Your task to perform on an android device: Find the nearest electronics store that's open Image 0: 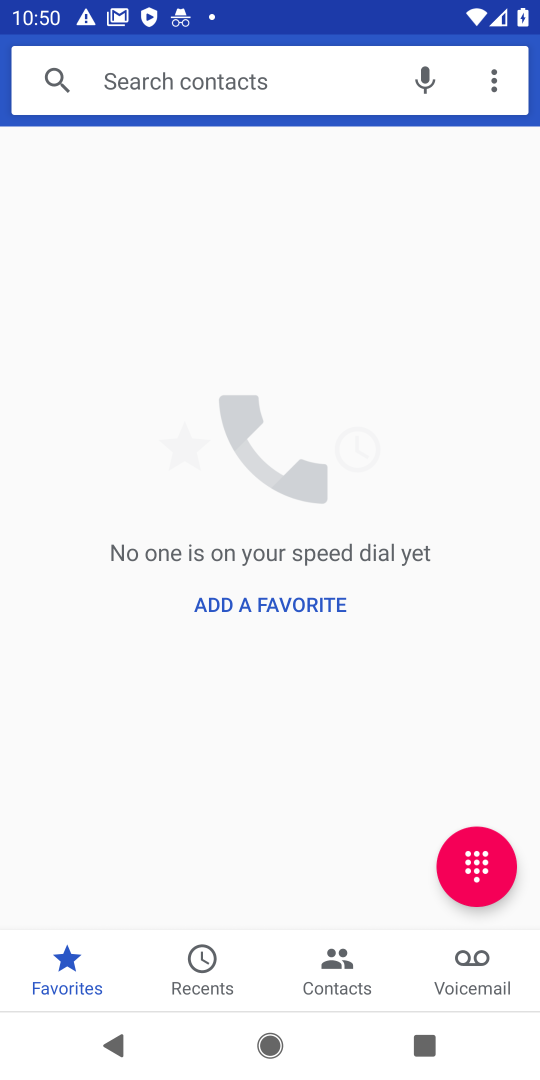
Step 0: press home button
Your task to perform on an android device: Find the nearest electronics store that's open Image 1: 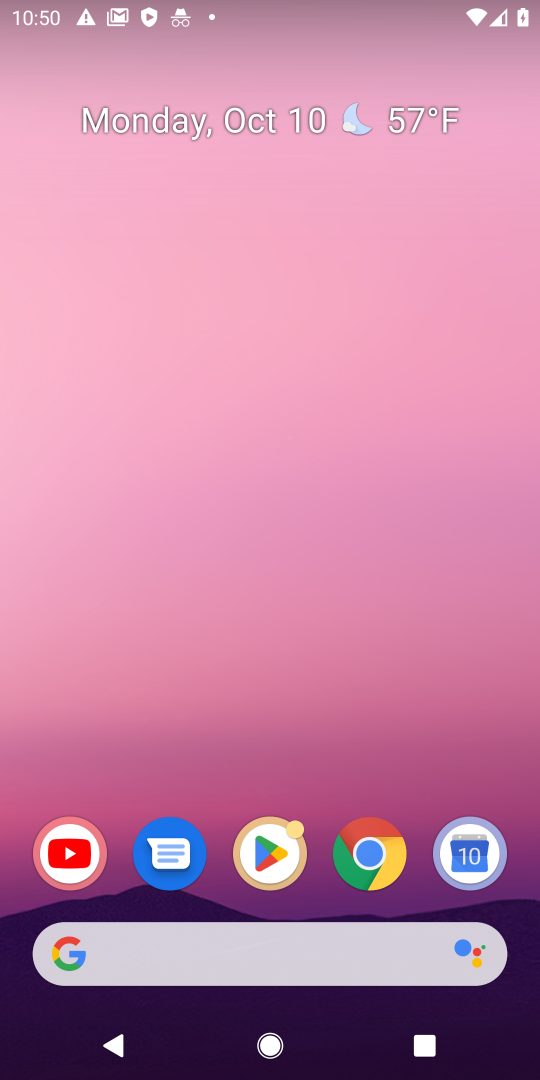
Step 1: click (330, 942)
Your task to perform on an android device: Find the nearest electronics store that's open Image 2: 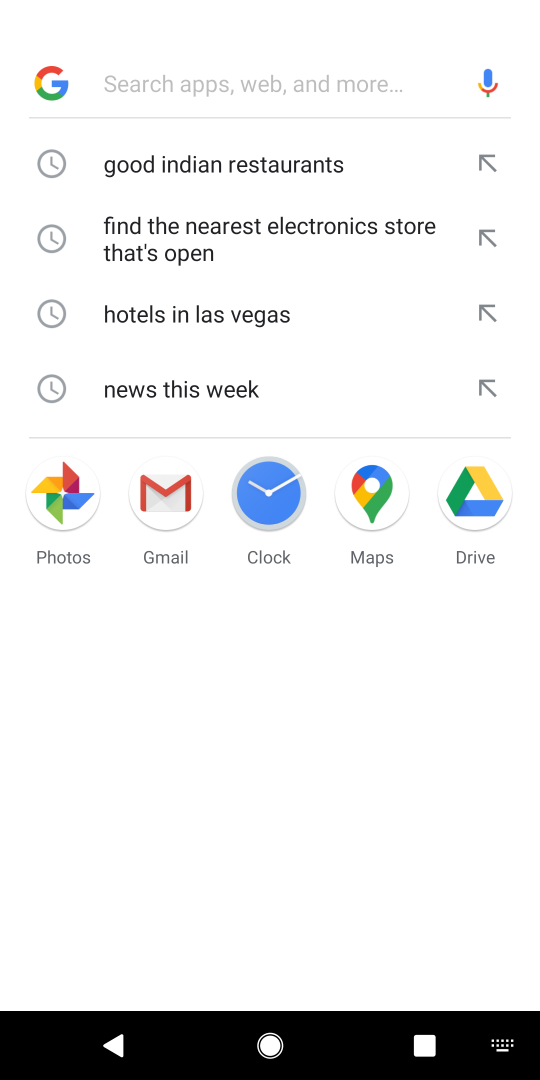
Step 2: type "Find the nearest electronics store that's open"
Your task to perform on an android device: Find the nearest electronics store that's open Image 3: 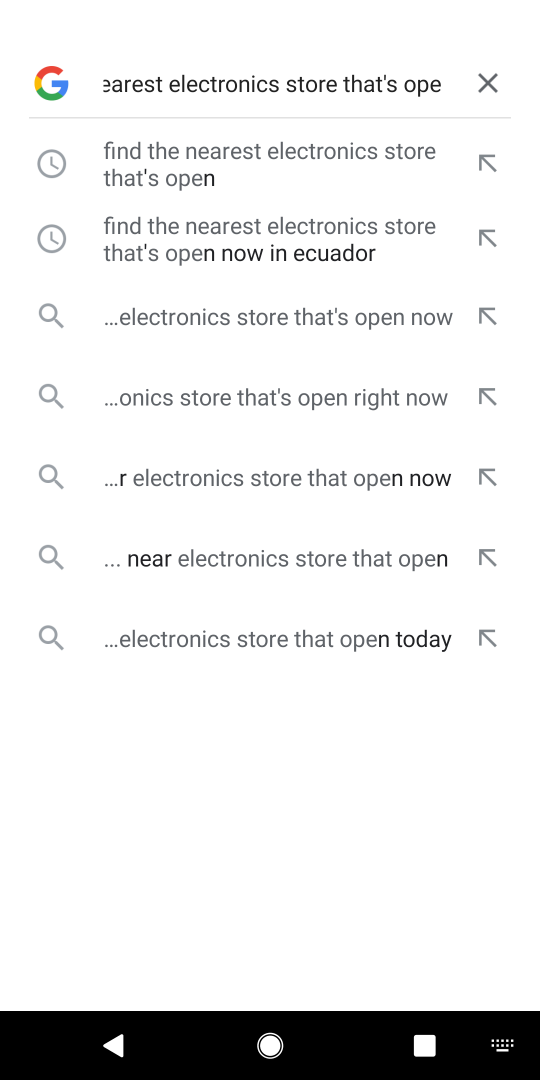
Step 3: press enter
Your task to perform on an android device: Find the nearest electronics store that's open Image 4: 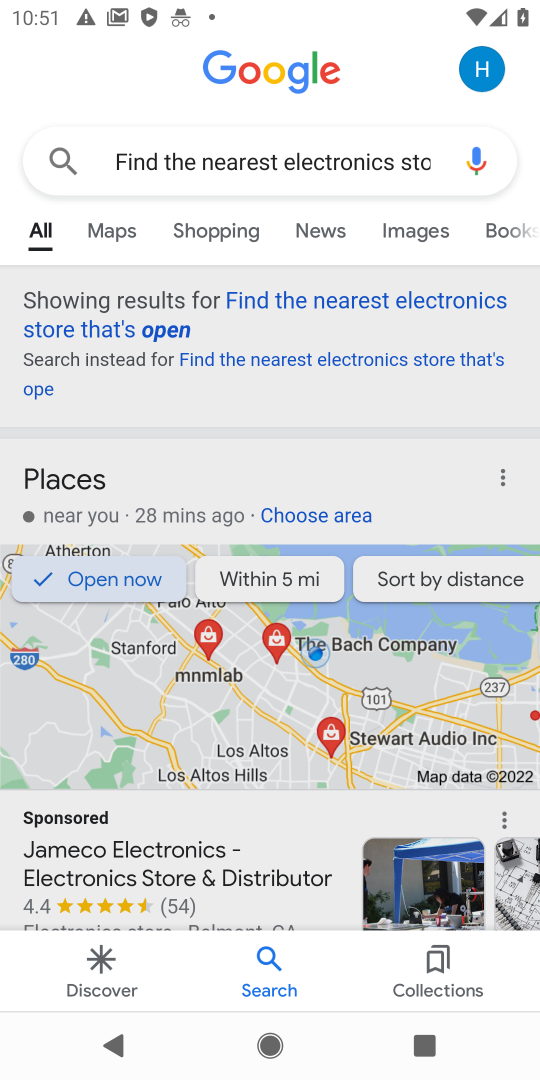
Step 4: task complete